Your task to perform on an android device: Is it going to rain today? Image 0: 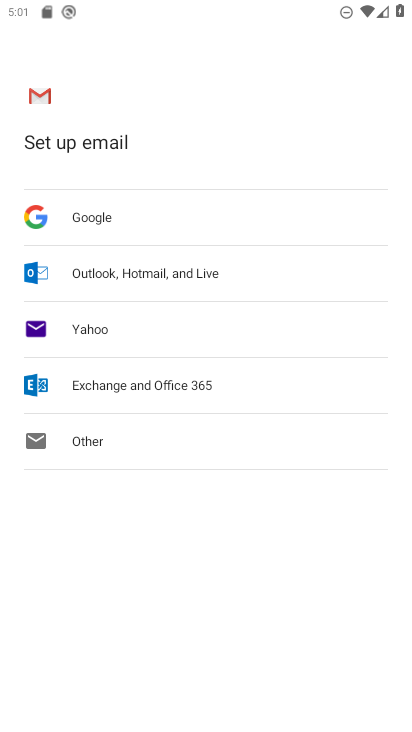
Step 0: press home button
Your task to perform on an android device: Is it going to rain today? Image 1: 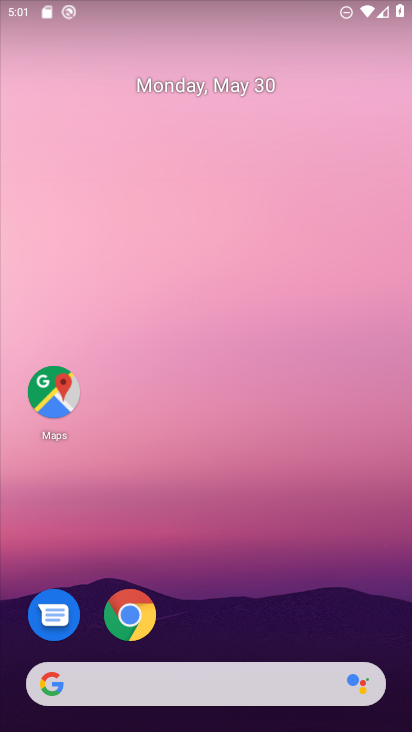
Step 1: click (194, 687)
Your task to perform on an android device: Is it going to rain today? Image 2: 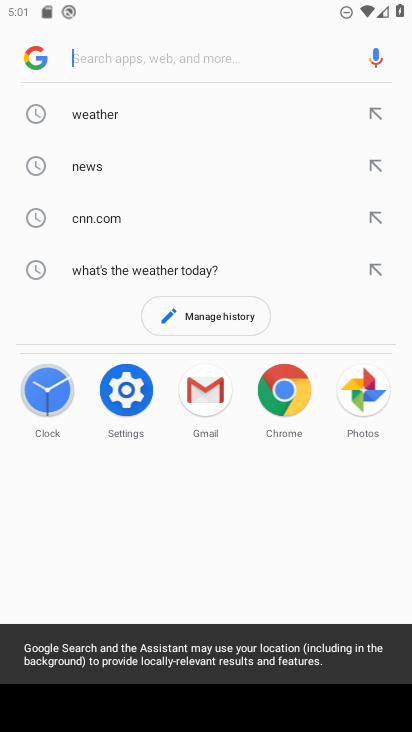
Step 2: click (99, 119)
Your task to perform on an android device: Is it going to rain today? Image 3: 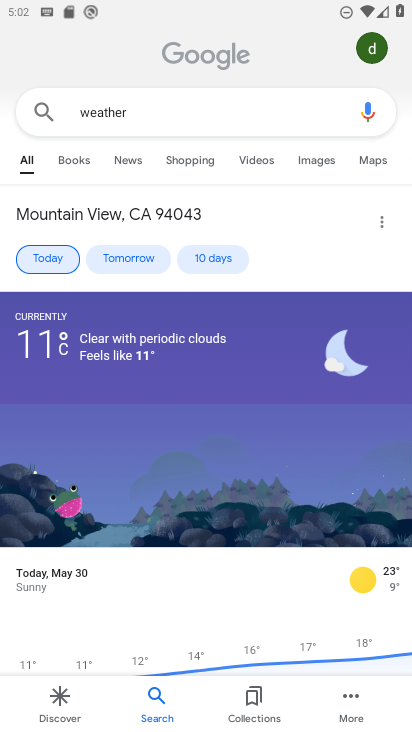
Step 3: task complete